Your task to perform on an android device: Clear all items from cart on bestbuy.com. Search for "apple airpods pro" on bestbuy.com, select the first entry, add it to the cart, then select checkout. Image 0: 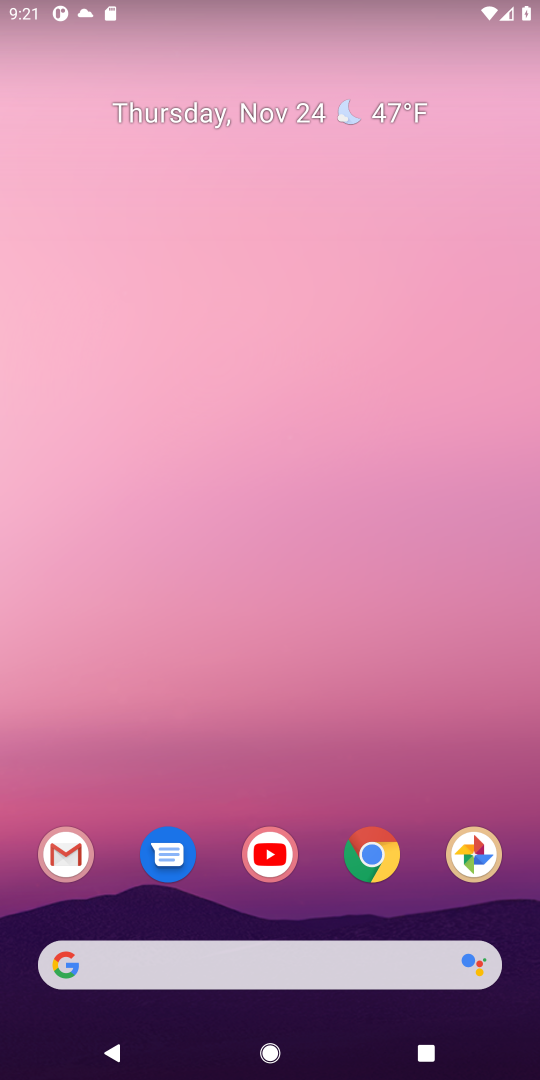
Step 0: click (379, 855)
Your task to perform on an android device: Clear all items from cart on bestbuy.com. Search for "apple airpods pro" on bestbuy.com, select the first entry, add it to the cart, then select checkout. Image 1: 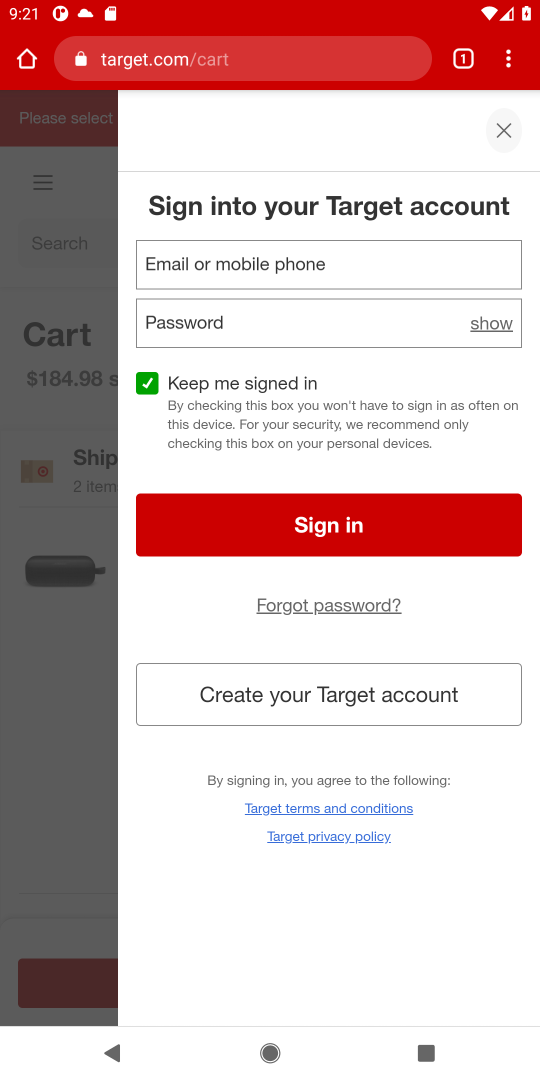
Step 1: click (216, 63)
Your task to perform on an android device: Clear all items from cart on bestbuy.com. Search for "apple airpods pro" on bestbuy.com, select the first entry, add it to the cart, then select checkout. Image 2: 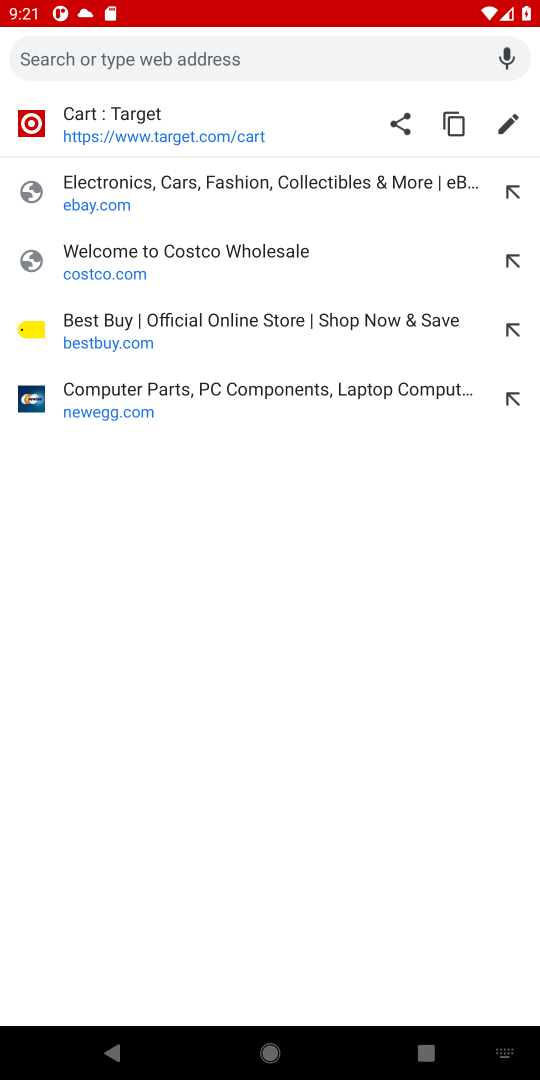
Step 2: click (81, 325)
Your task to perform on an android device: Clear all items from cart on bestbuy.com. Search for "apple airpods pro" on bestbuy.com, select the first entry, add it to the cart, then select checkout. Image 3: 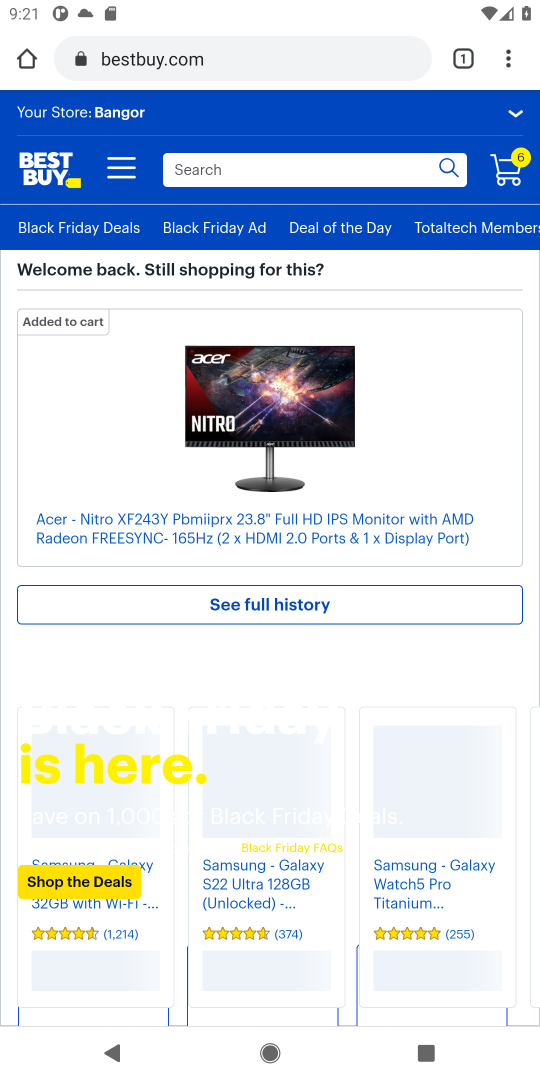
Step 3: click (507, 169)
Your task to perform on an android device: Clear all items from cart on bestbuy.com. Search for "apple airpods pro" on bestbuy.com, select the first entry, add it to the cart, then select checkout. Image 4: 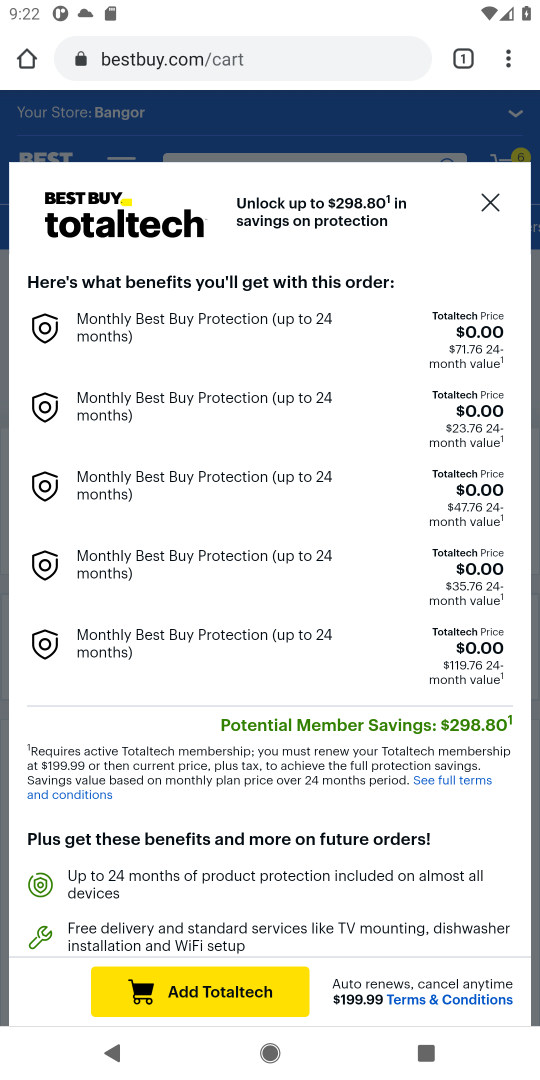
Step 4: drag from (107, 607) to (138, 341)
Your task to perform on an android device: Clear all items from cart on bestbuy.com. Search for "apple airpods pro" on bestbuy.com, select the first entry, add it to the cart, then select checkout. Image 5: 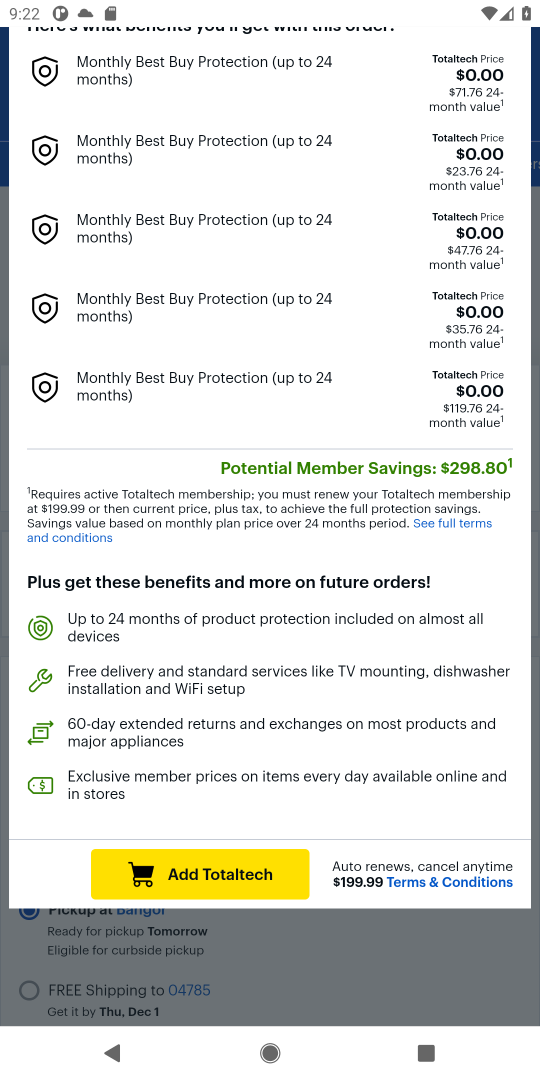
Step 5: click (416, 956)
Your task to perform on an android device: Clear all items from cart on bestbuy.com. Search for "apple airpods pro" on bestbuy.com, select the first entry, add it to the cart, then select checkout. Image 6: 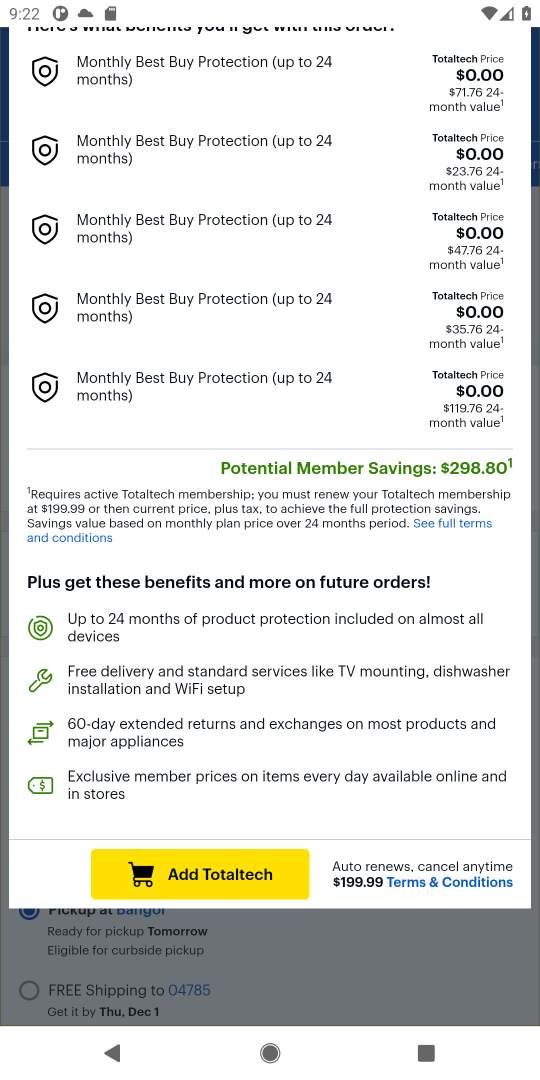
Step 6: click (478, 950)
Your task to perform on an android device: Clear all items from cart on bestbuy.com. Search for "apple airpods pro" on bestbuy.com, select the first entry, add it to the cart, then select checkout. Image 7: 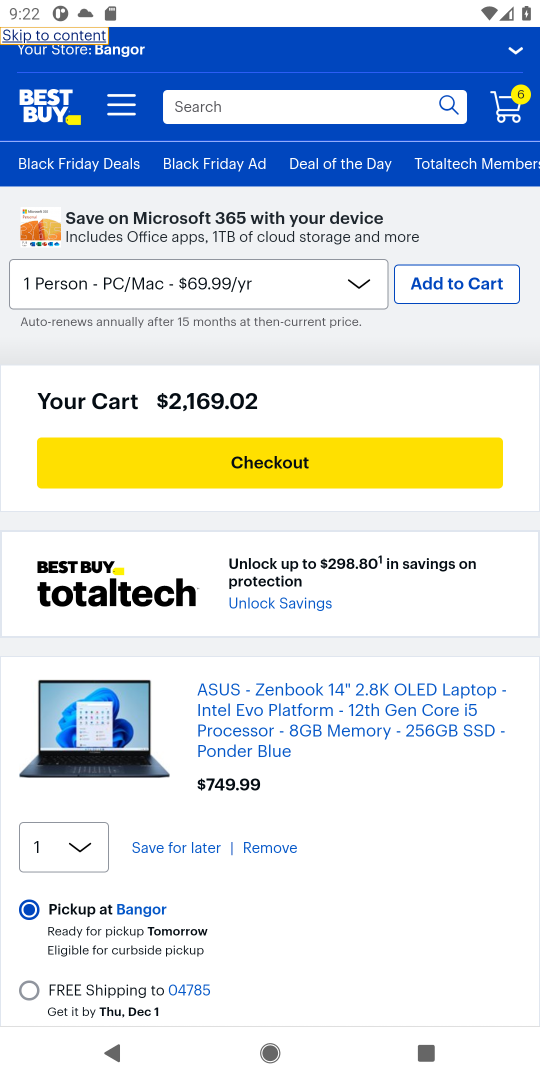
Step 7: click (250, 851)
Your task to perform on an android device: Clear all items from cart on bestbuy.com. Search for "apple airpods pro" on bestbuy.com, select the first entry, add it to the cart, then select checkout. Image 8: 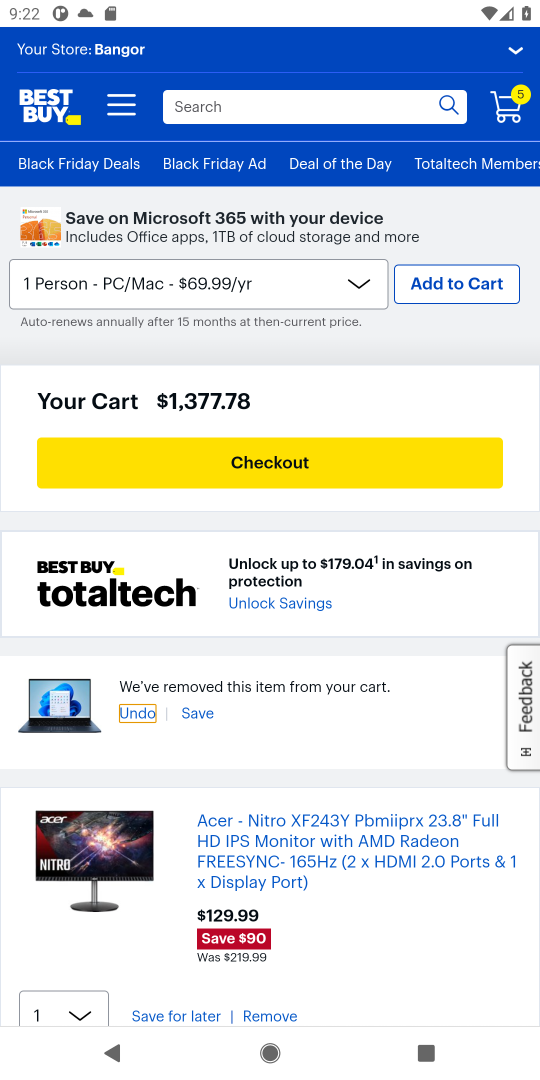
Step 8: drag from (294, 879) to (286, 629)
Your task to perform on an android device: Clear all items from cart on bestbuy.com. Search for "apple airpods pro" on bestbuy.com, select the first entry, add it to the cart, then select checkout. Image 9: 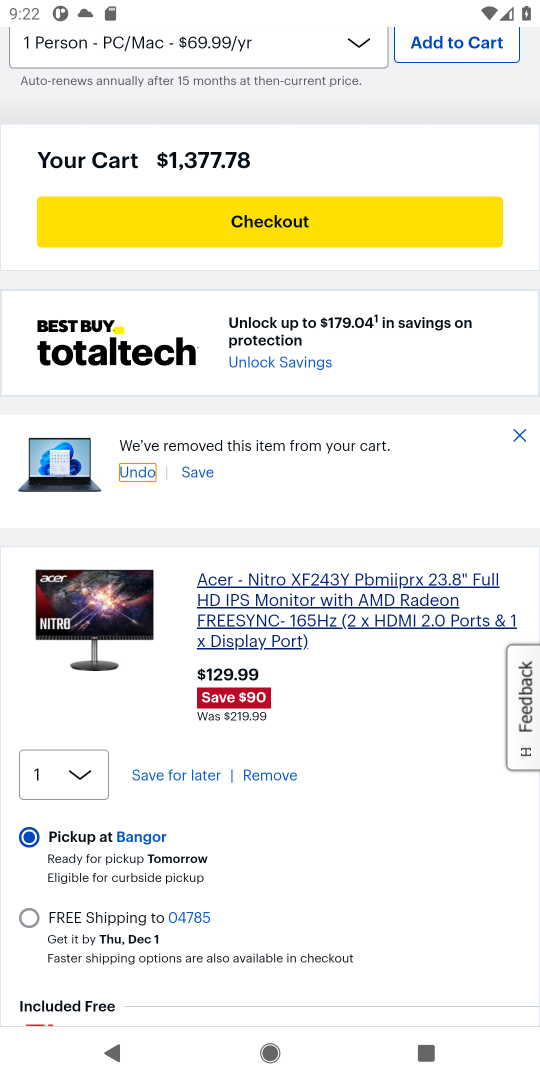
Step 9: click (267, 776)
Your task to perform on an android device: Clear all items from cart on bestbuy.com. Search for "apple airpods pro" on bestbuy.com, select the first entry, add it to the cart, then select checkout. Image 10: 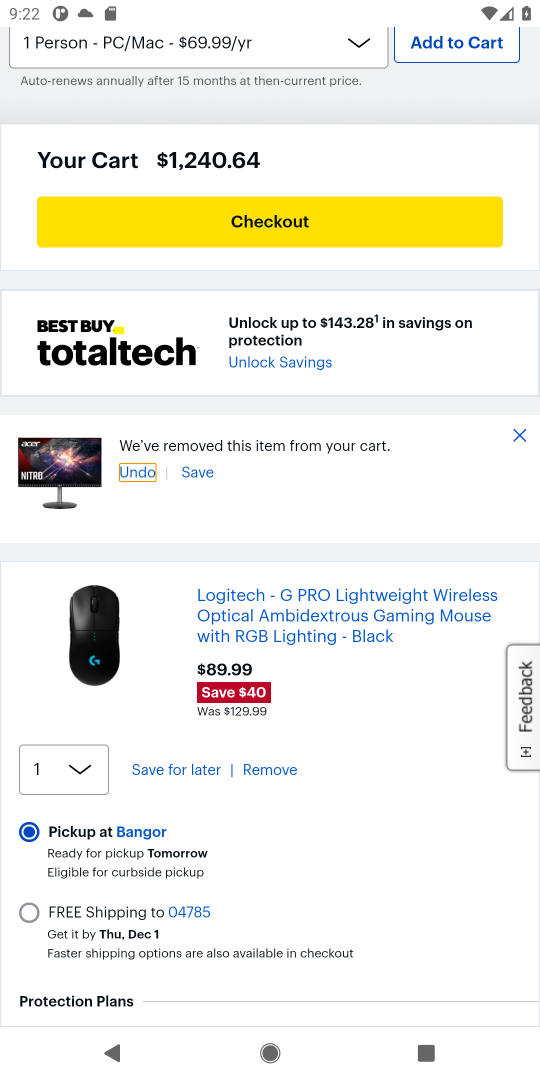
Step 10: click (268, 777)
Your task to perform on an android device: Clear all items from cart on bestbuy.com. Search for "apple airpods pro" on bestbuy.com, select the first entry, add it to the cart, then select checkout. Image 11: 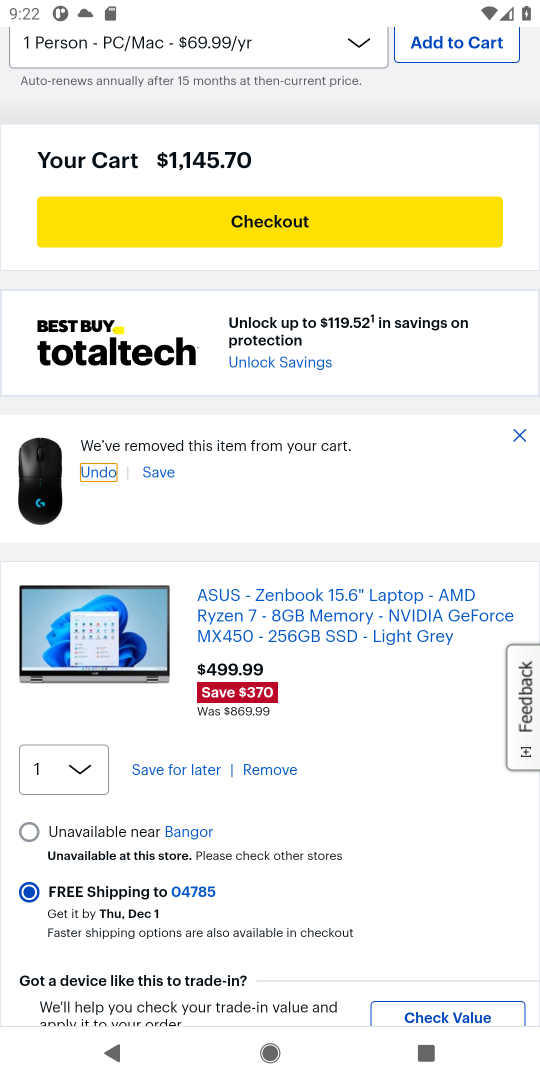
Step 11: click (268, 777)
Your task to perform on an android device: Clear all items from cart on bestbuy.com. Search for "apple airpods pro" on bestbuy.com, select the first entry, add it to the cart, then select checkout. Image 12: 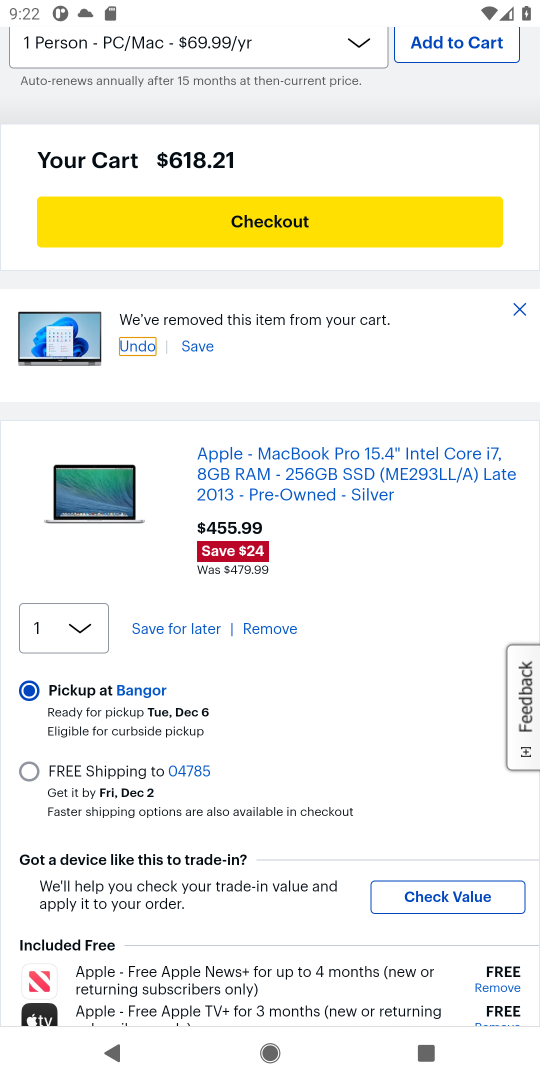
Step 12: click (257, 635)
Your task to perform on an android device: Clear all items from cart on bestbuy.com. Search for "apple airpods pro" on bestbuy.com, select the first entry, add it to the cart, then select checkout. Image 13: 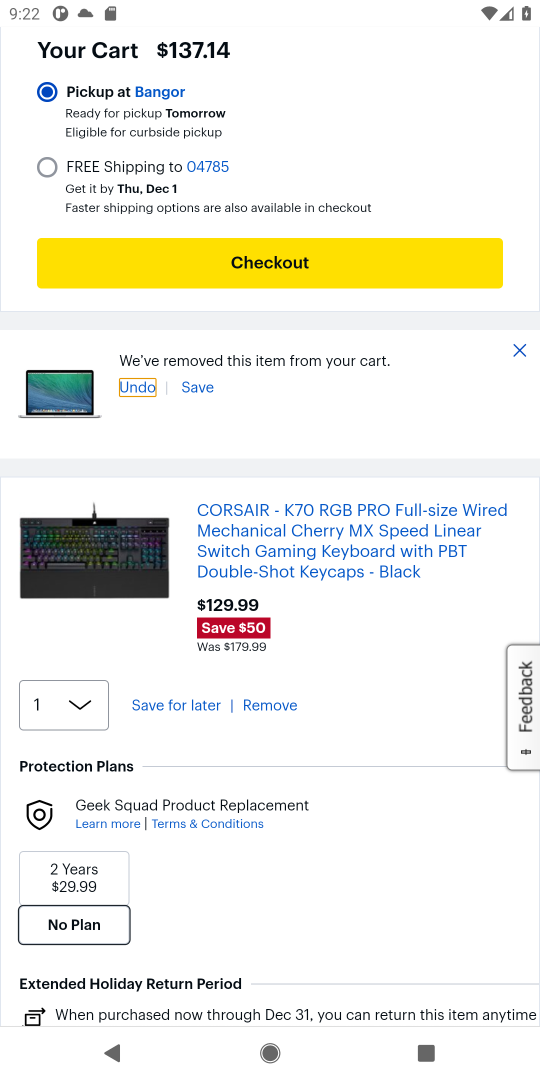
Step 13: click (268, 711)
Your task to perform on an android device: Clear all items from cart on bestbuy.com. Search for "apple airpods pro" on bestbuy.com, select the first entry, add it to the cart, then select checkout. Image 14: 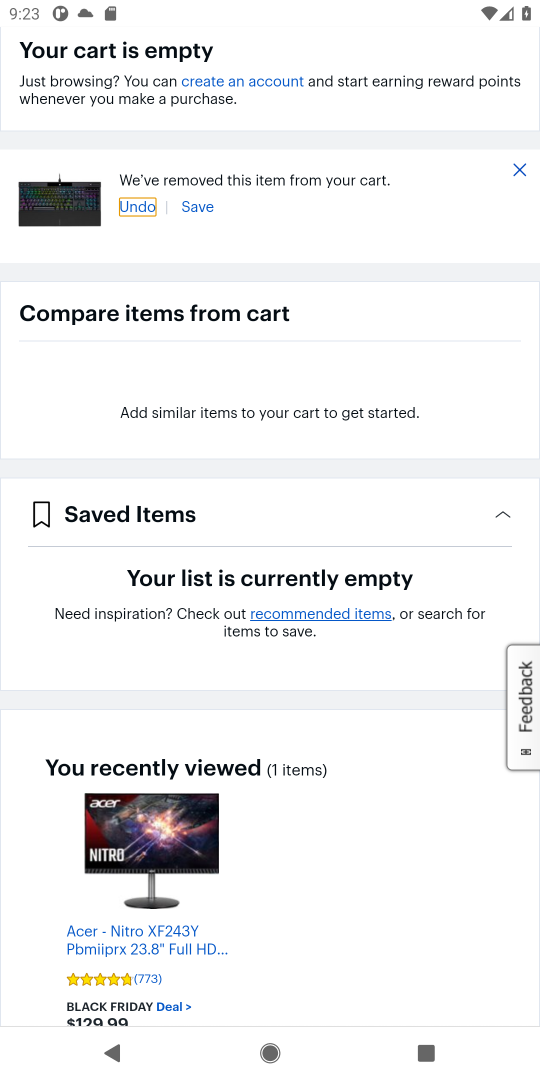
Step 14: drag from (341, 723) to (369, 889)
Your task to perform on an android device: Clear all items from cart on bestbuy.com. Search for "apple airpods pro" on bestbuy.com, select the first entry, add it to the cart, then select checkout. Image 15: 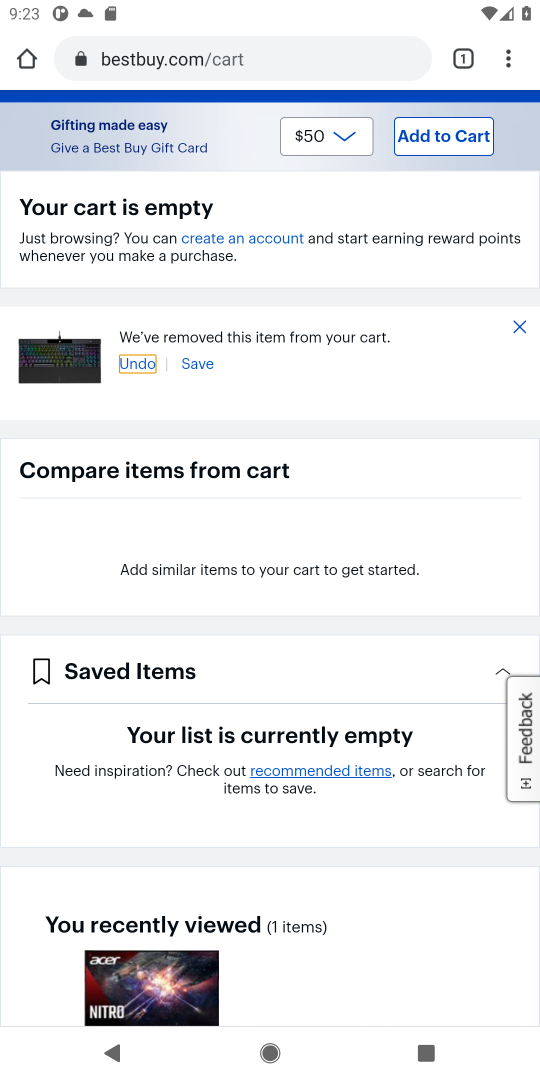
Step 15: drag from (331, 208) to (311, 314)
Your task to perform on an android device: Clear all items from cart on bestbuy.com. Search for "apple airpods pro" on bestbuy.com, select the first entry, add it to the cart, then select checkout. Image 16: 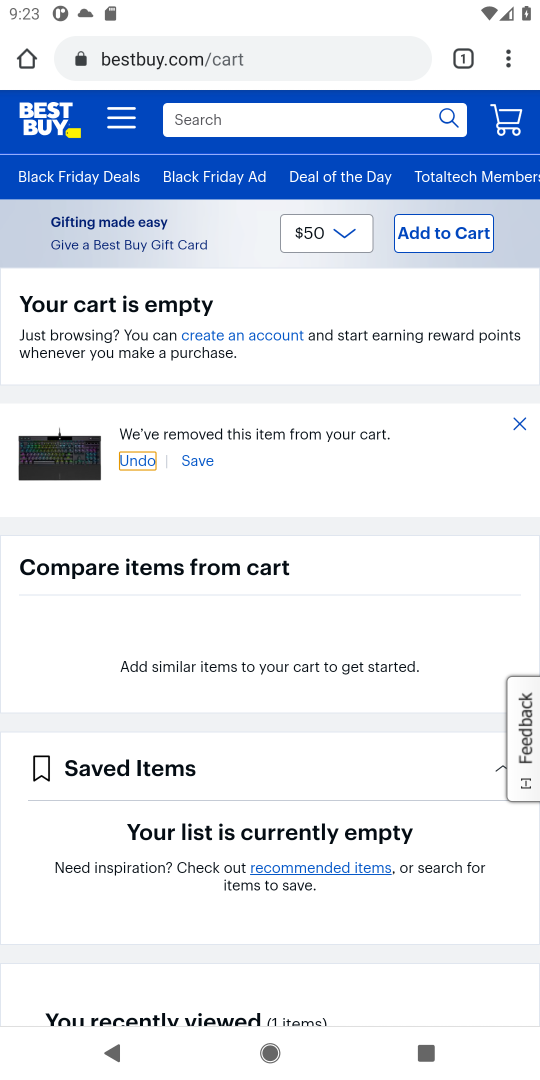
Step 16: click (355, 116)
Your task to perform on an android device: Clear all items from cart on bestbuy.com. Search for "apple airpods pro" on bestbuy.com, select the first entry, add it to the cart, then select checkout. Image 17: 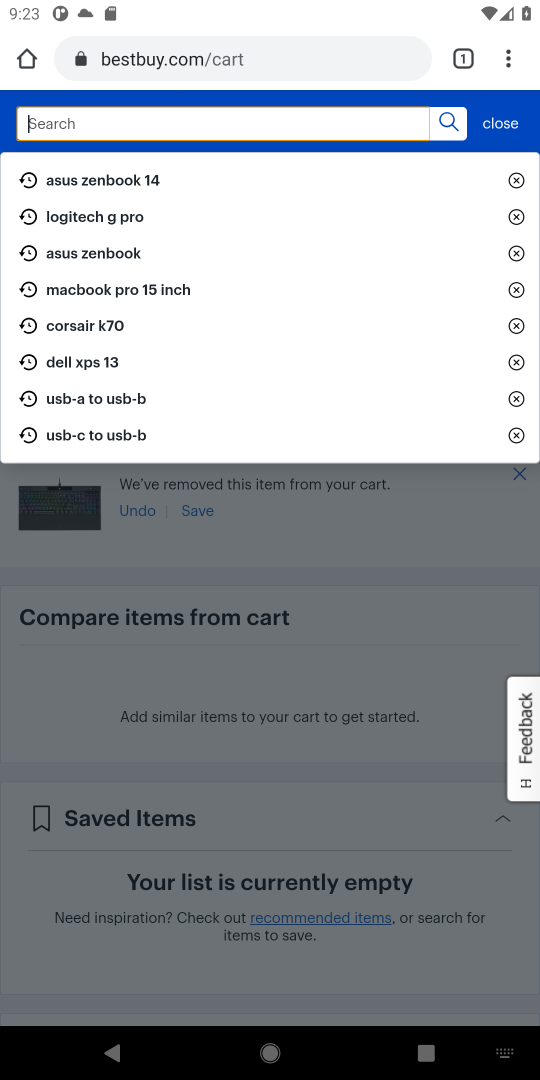
Step 17: type "apple airpods pro"
Your task to perform on an android device: Clear all items from cart on bestbuy.com. Search for "apple airpods pro" on bestbuy.com, select the first entry, add it to the cart, then select checkout. Image 18: 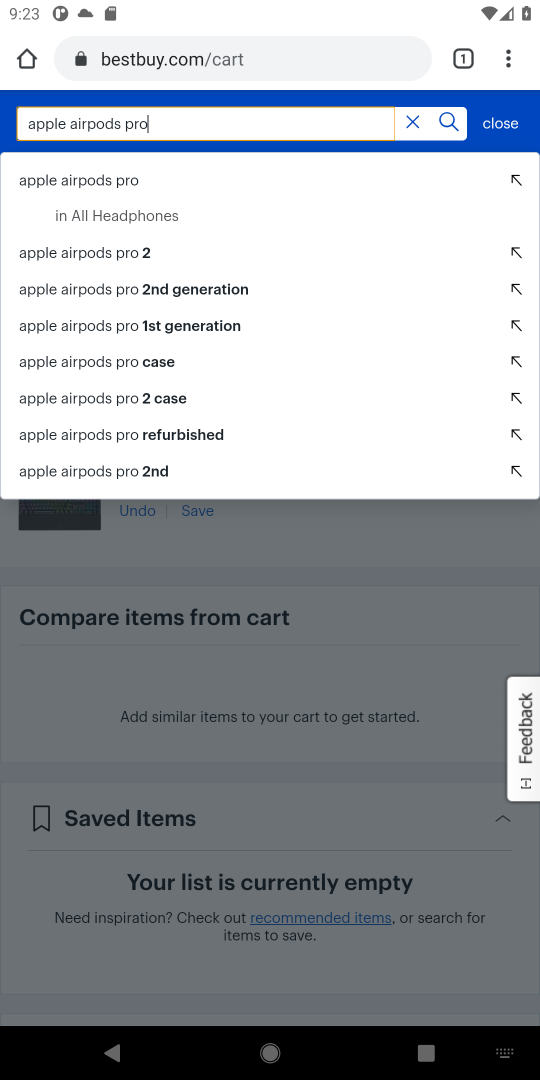
Step 18: click (81, 186)
Your task to perform on an android device: Clear all items from cart on bestbuy.com. Search for "apple airpods pro" on bestbuy.com, select the first entry, add it to the cart, then select checkout. Image 19: 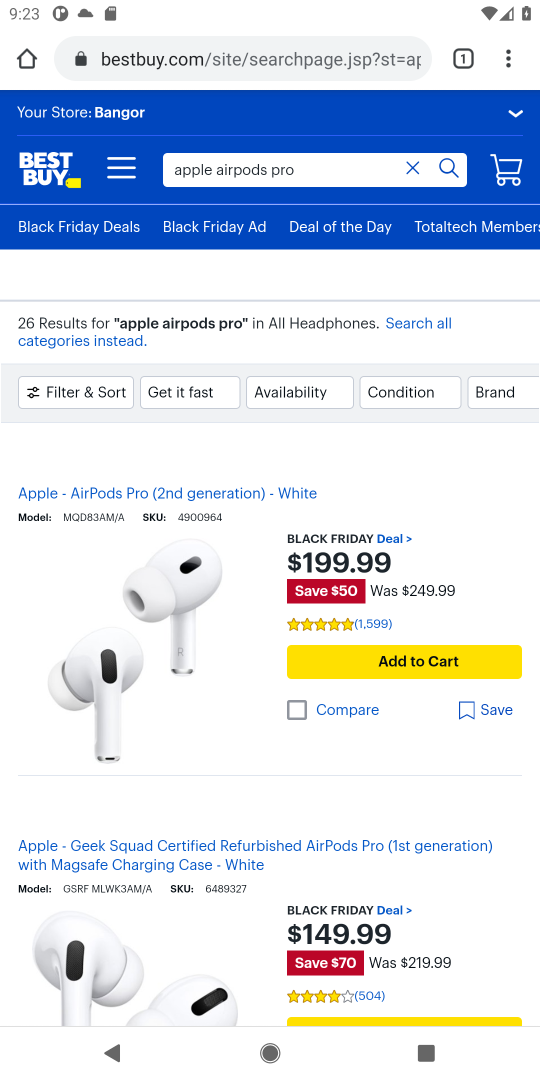
Step 19: click (356, 717)
Your task to perform on an android device: Clear all items from cart on bestbuy.com. Search for "apple airpods pro" on bestbuy.com, select the first entry, add it to the cart, then select checkout. Image 20: 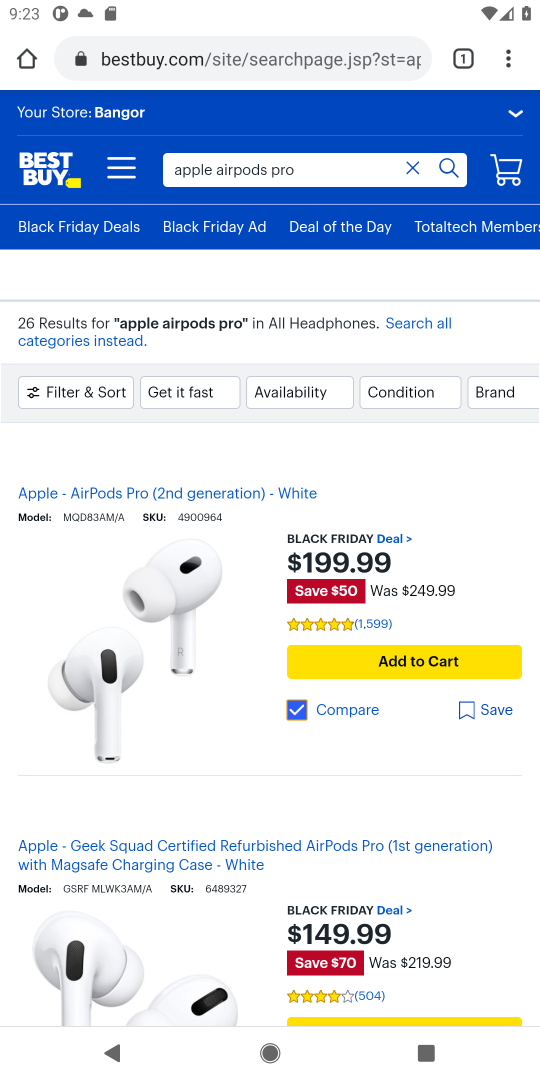
Step 20: click (371, 677)
Your task to perform on an android device: Clear all items from cart on bestbuy.com. Search for "apple airpods pro" on bestbuy.com, select the first entry, add it to the cart, then select checkout. Image 21: 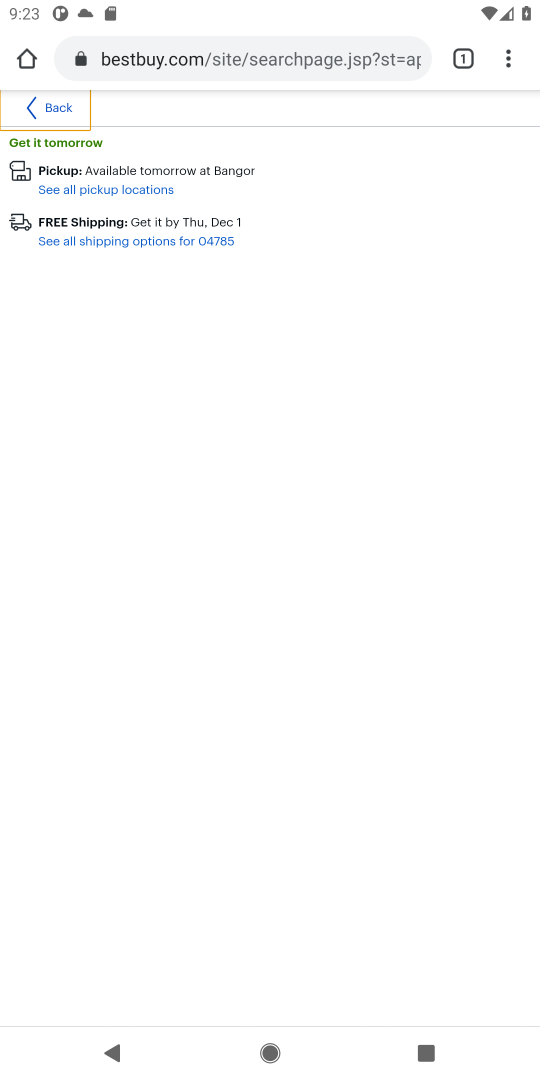
Step 21: click (374, 711)
Your task to perform on an android device: Clear all items from cart on bestbuy.com. Search for "apple airpods pro" on bestbuy.com, select the first entry, add it to the cart, then select checkout. Image 22: 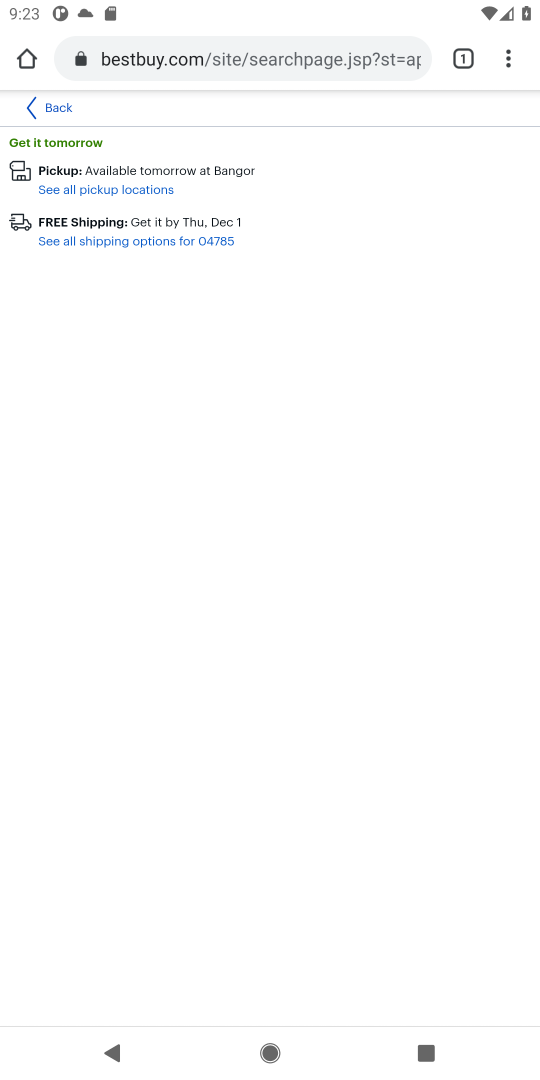
Step 22: click (30, 112)
Your task to perform on an android device: Clear all items from cart on bestbuy.com. Search for "apple airpods pro" on bestbuy.com, select the first entry, add it to the cart, then select checkout. Image 23: 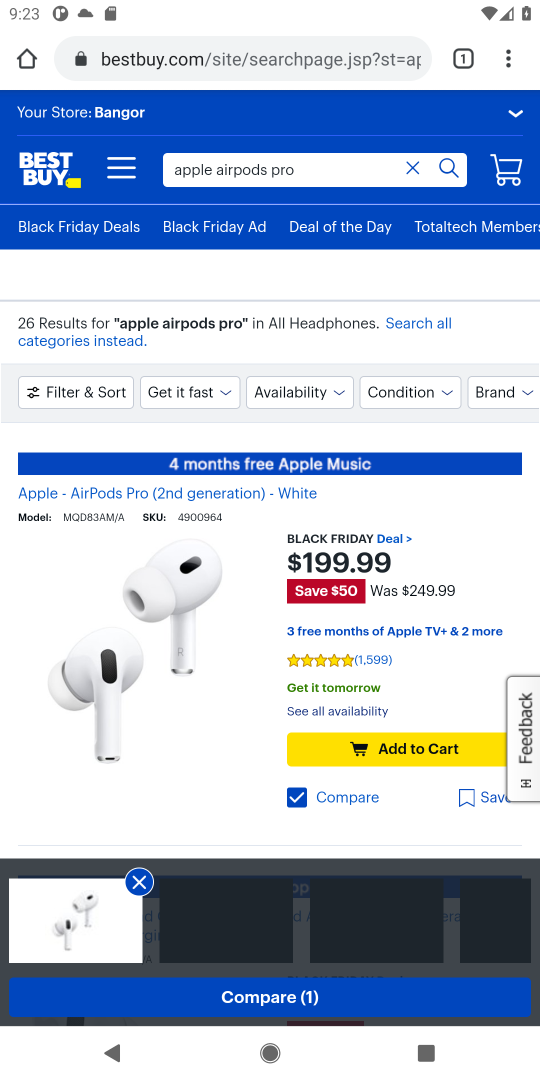
Step 23: click (388, 745)
Your task to perform on an android device: Clear all items from cart on bestbuy.com. Search for "apple airpods pro" on bestbuy.com, select the first entry, add it to the cart, then select checkout. Image 24: 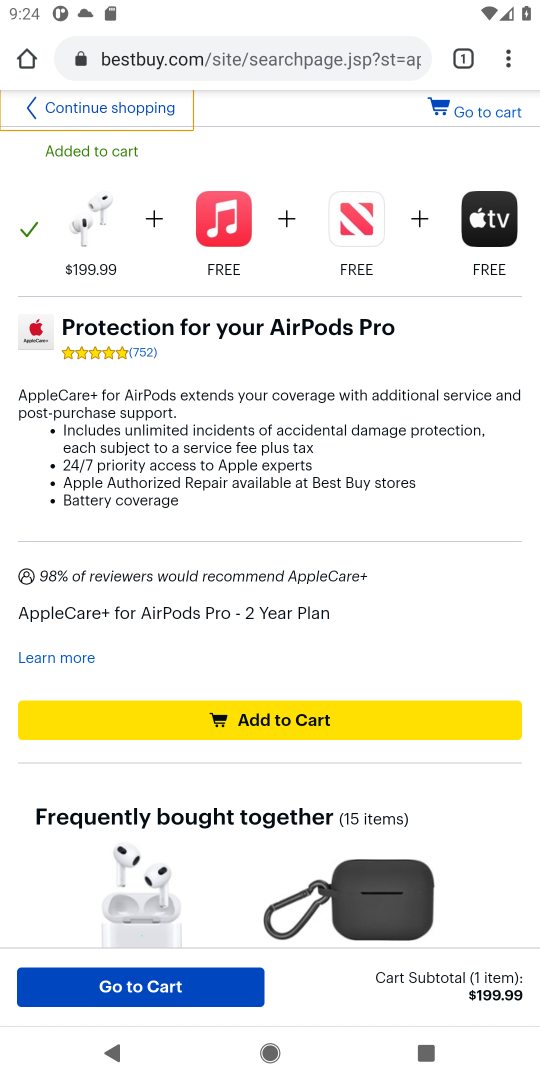
Step 24: click (476, 115)
Your task to perform on an android device: Clear all items from cart on bestbuy.com. Search for "apple airpods pro" on bestbuy.com, select the first entry, add it to the cart, then select checkout. Image 25: 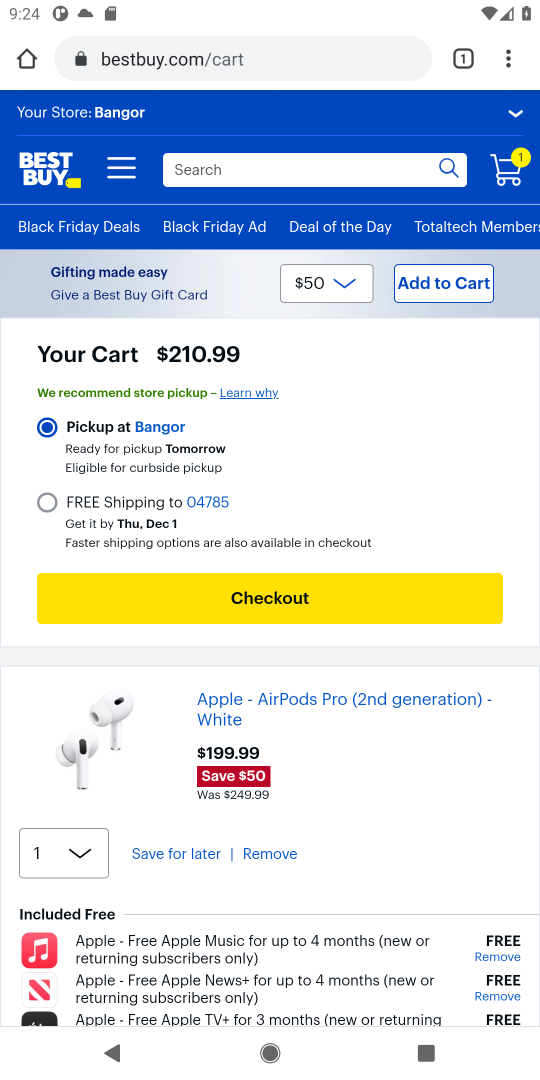
Step 25: click (245, 597)
Your task to perform on an android device: Clear all items from cart on bestbuy.com. Search for "apple airpods pro" on bestbuy.com, select the first entry, add it to the cart, then select checkout. Image 26: 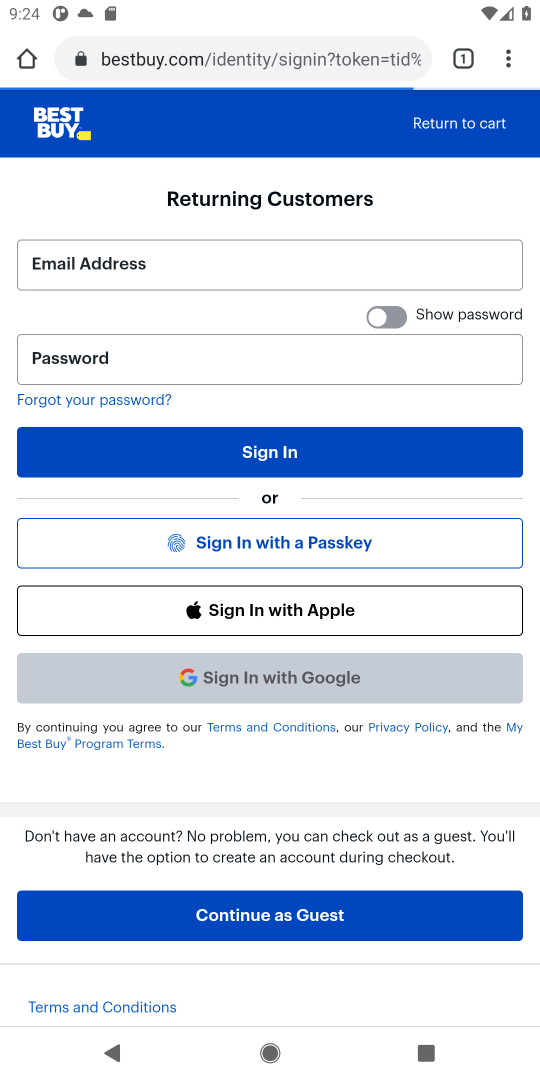
Step 26: task complete